Your task to perform on an android device: What's the news about the US dollar exchange rate? Image 0: 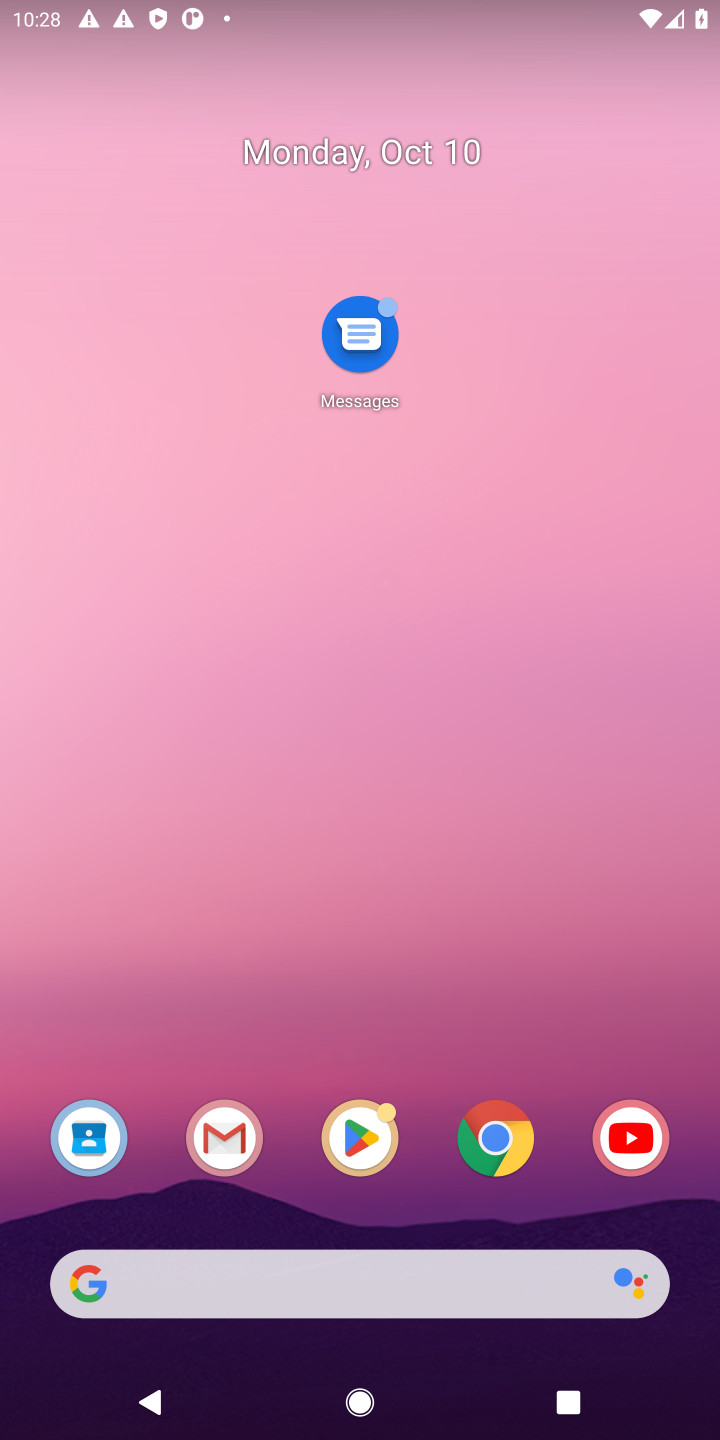
Step 0: click (494, 1149)
Your task to perform on an android device: What's the news about the US dollar exchange rate? Image 1: 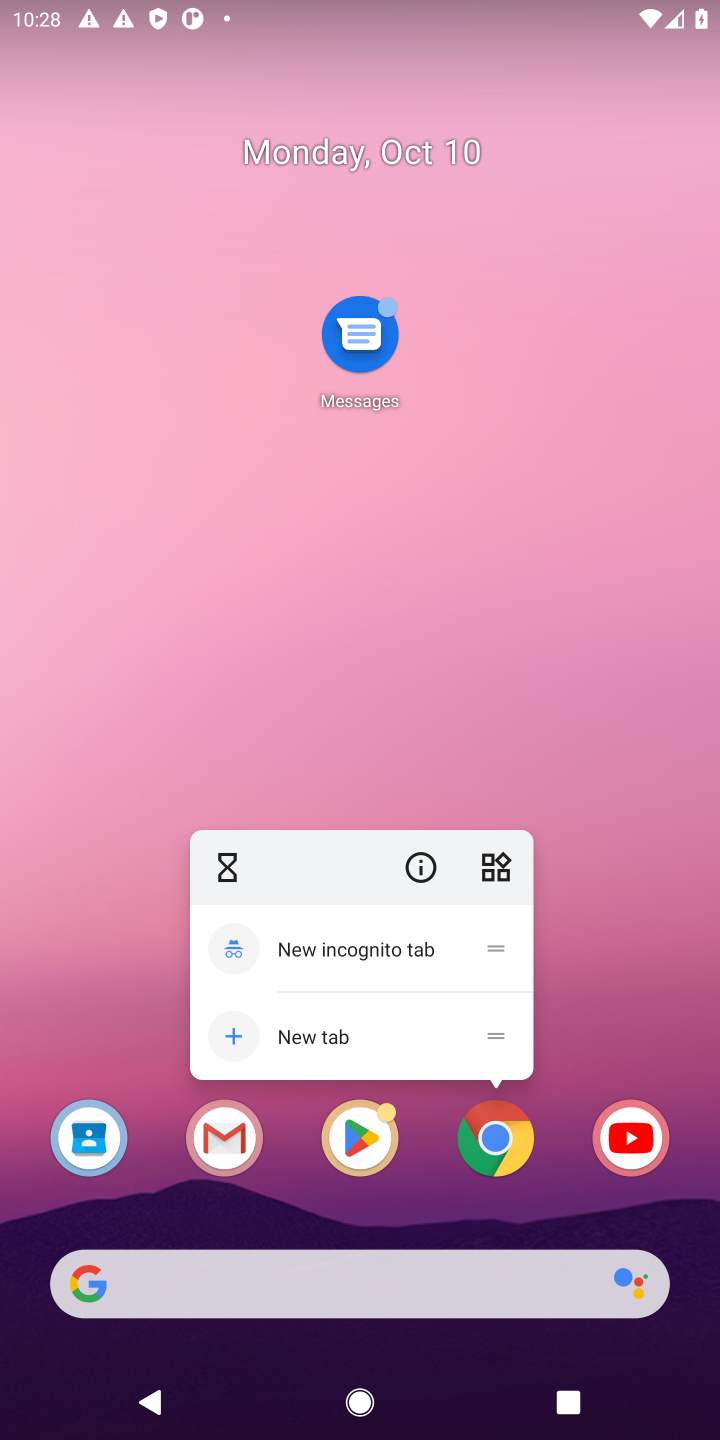
Step 1: click (513, 1135)
Your task to perform on an android device: What's the news about the US dollar exchange rate? Image 2: 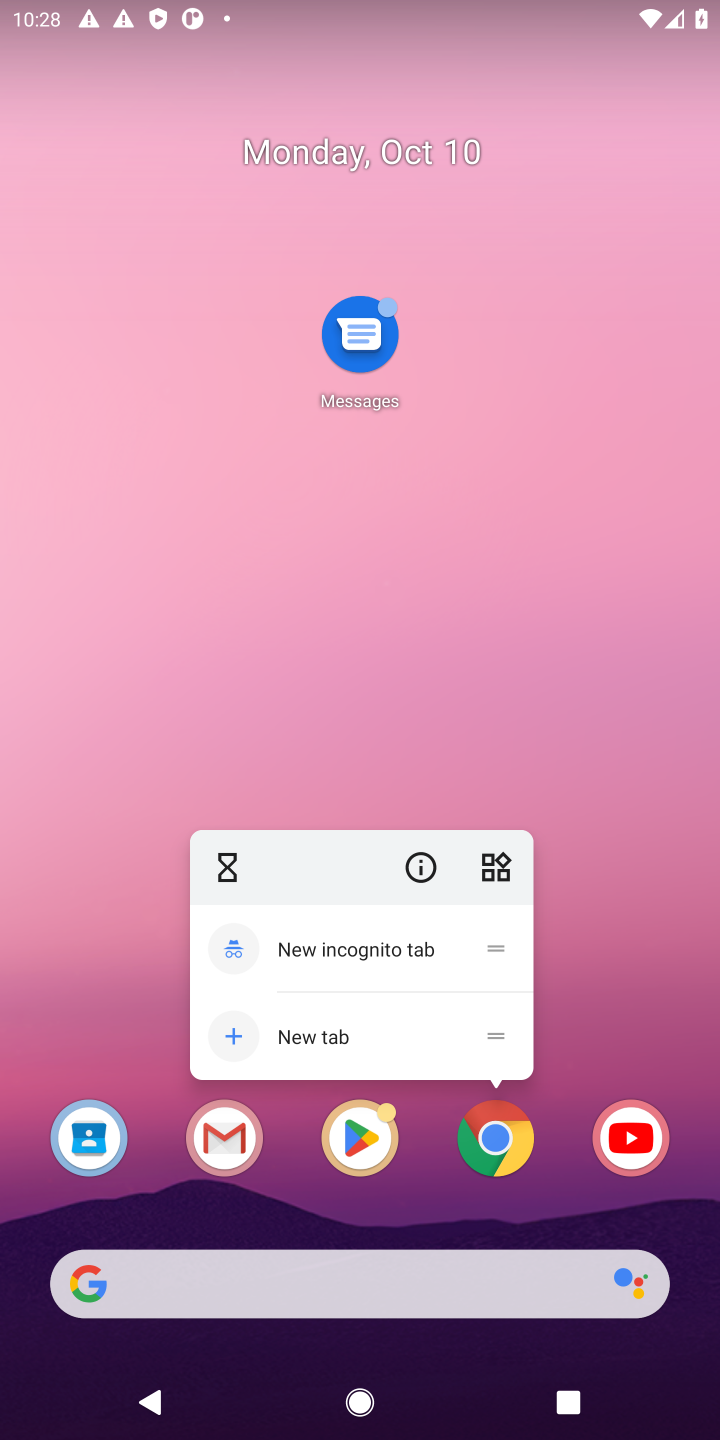
Step 2: click (483, 1136)
Your task to perform on an android device: What's the news about the US dollar exchange rate? Image 3: 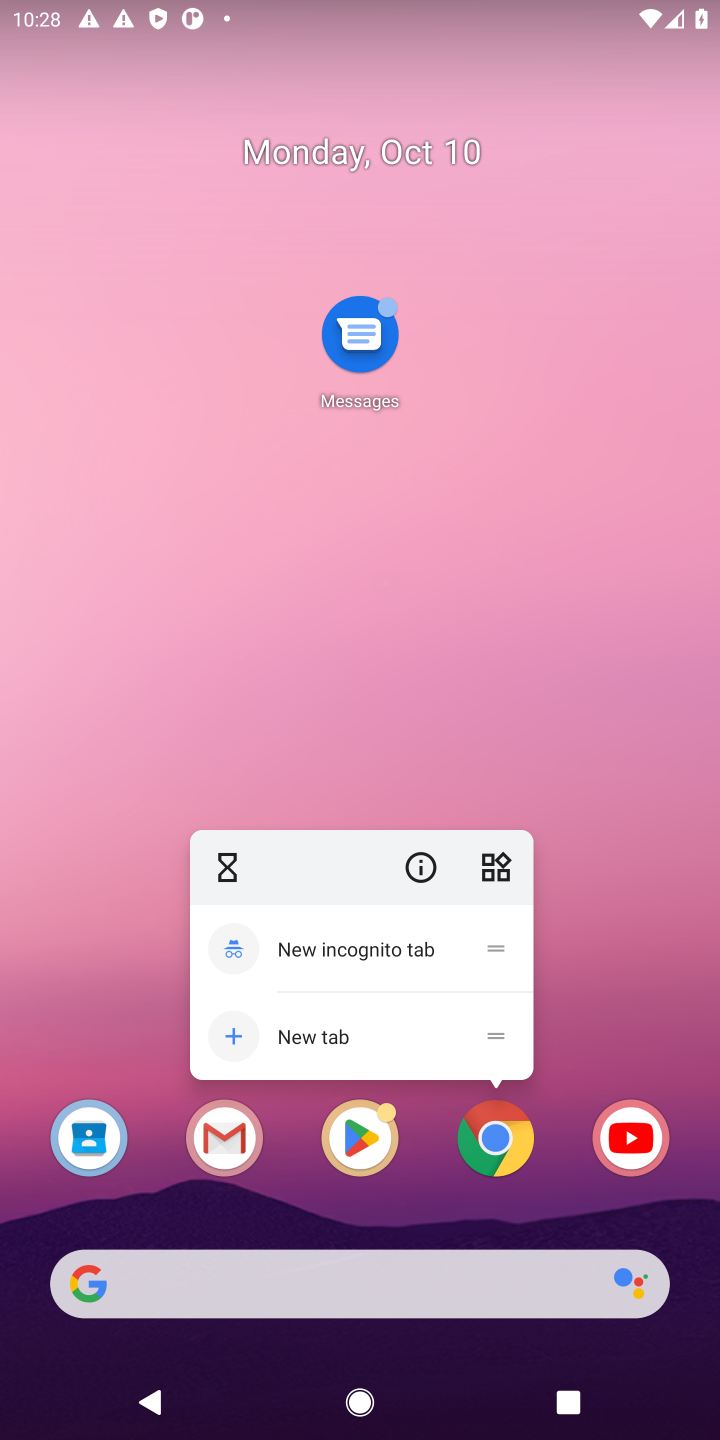
Step 3: click (496, 1158)
Your task to perform on an android device: What's the news about the US dollar exchange rate? Image 4: 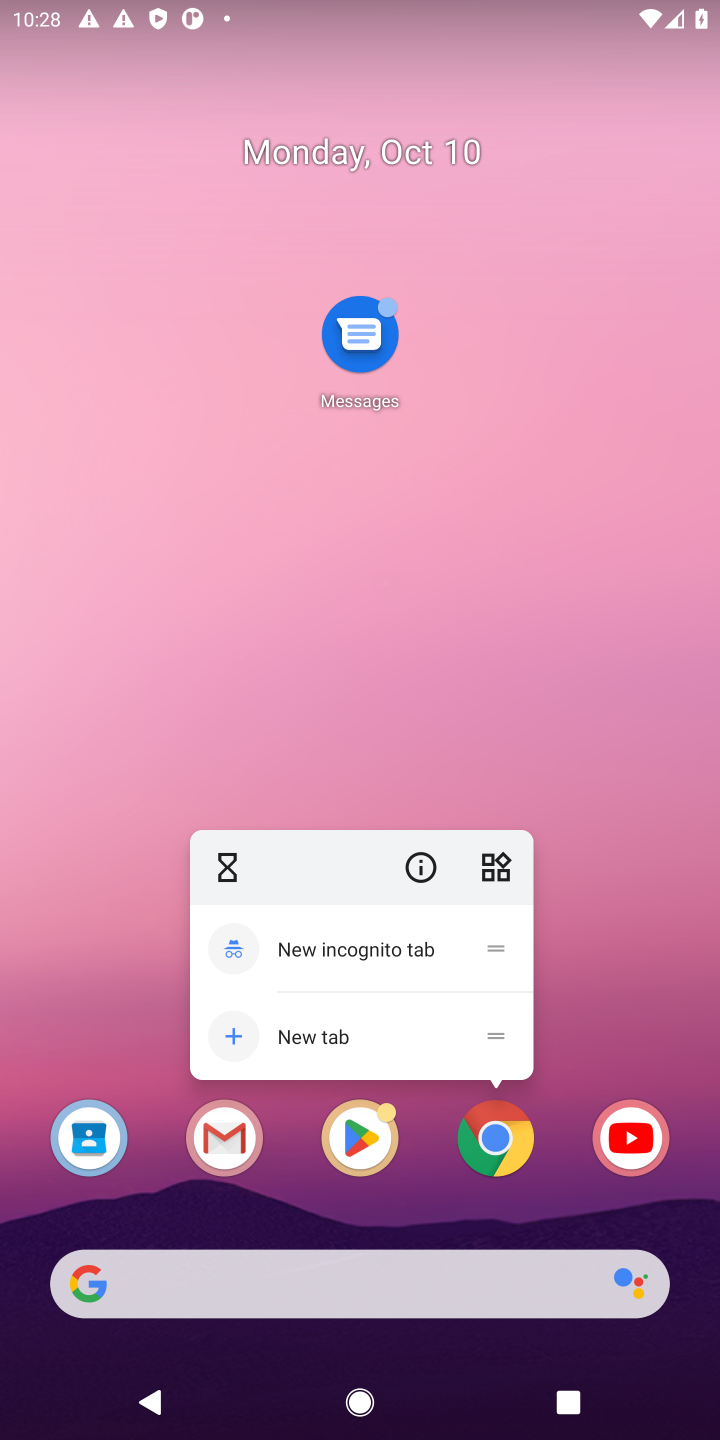
Step 4: click (504, 1139)
Your task to perform on an android device: What's the news about the US dollar exchange rate? Image 5: 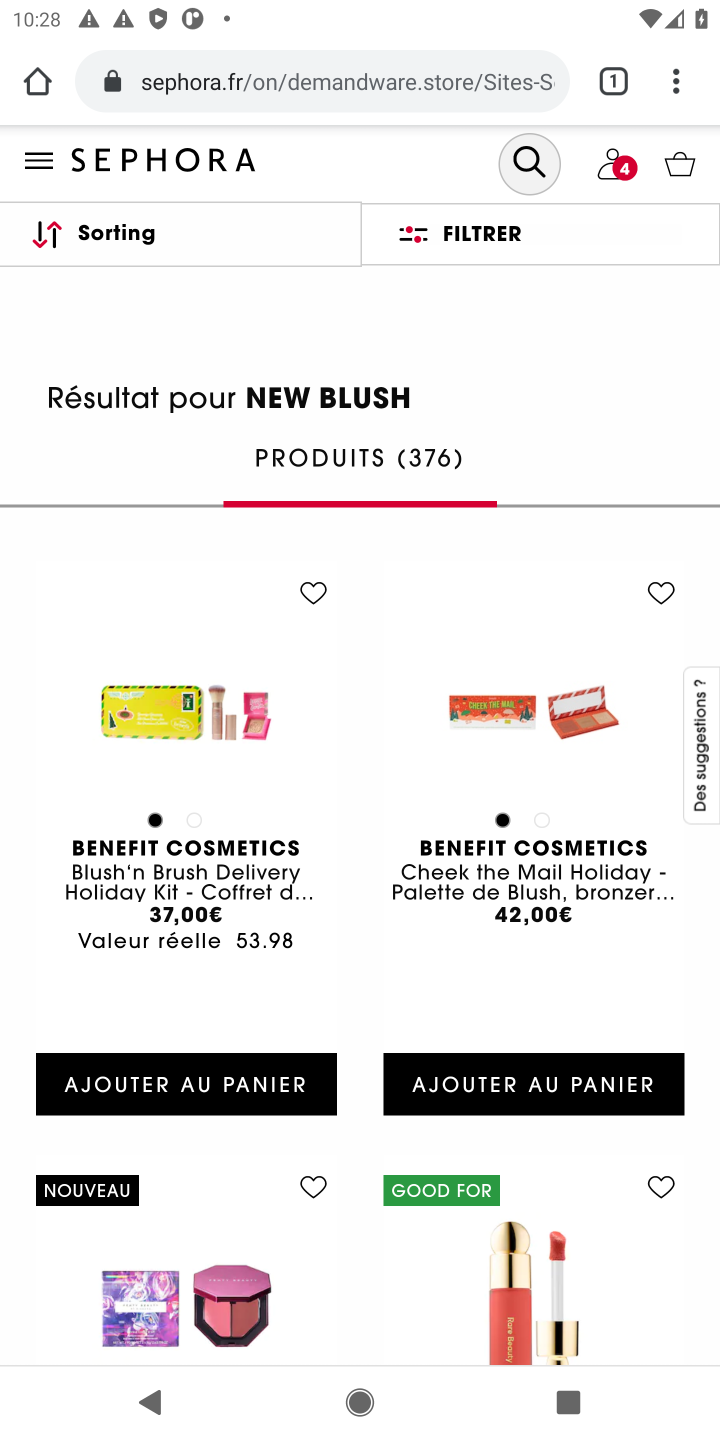
Step 5: click (315, 83)
Your task to perform on an android device: What's the news about the US dollar exchange rate? Image 6: 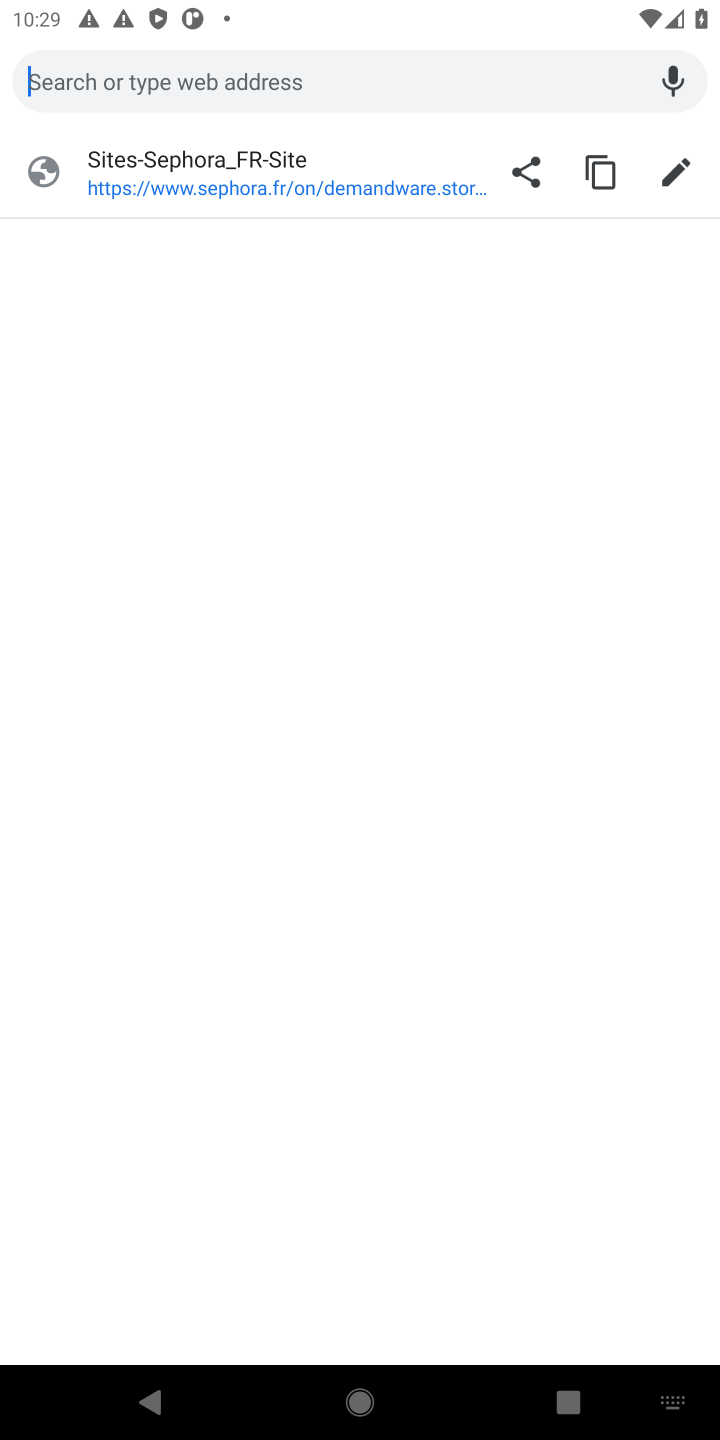
Step 6: type "news about the US dollar exchange rate"
Your task to perform on an android device: What's the news about the US dollar exchange rate? Image 7: 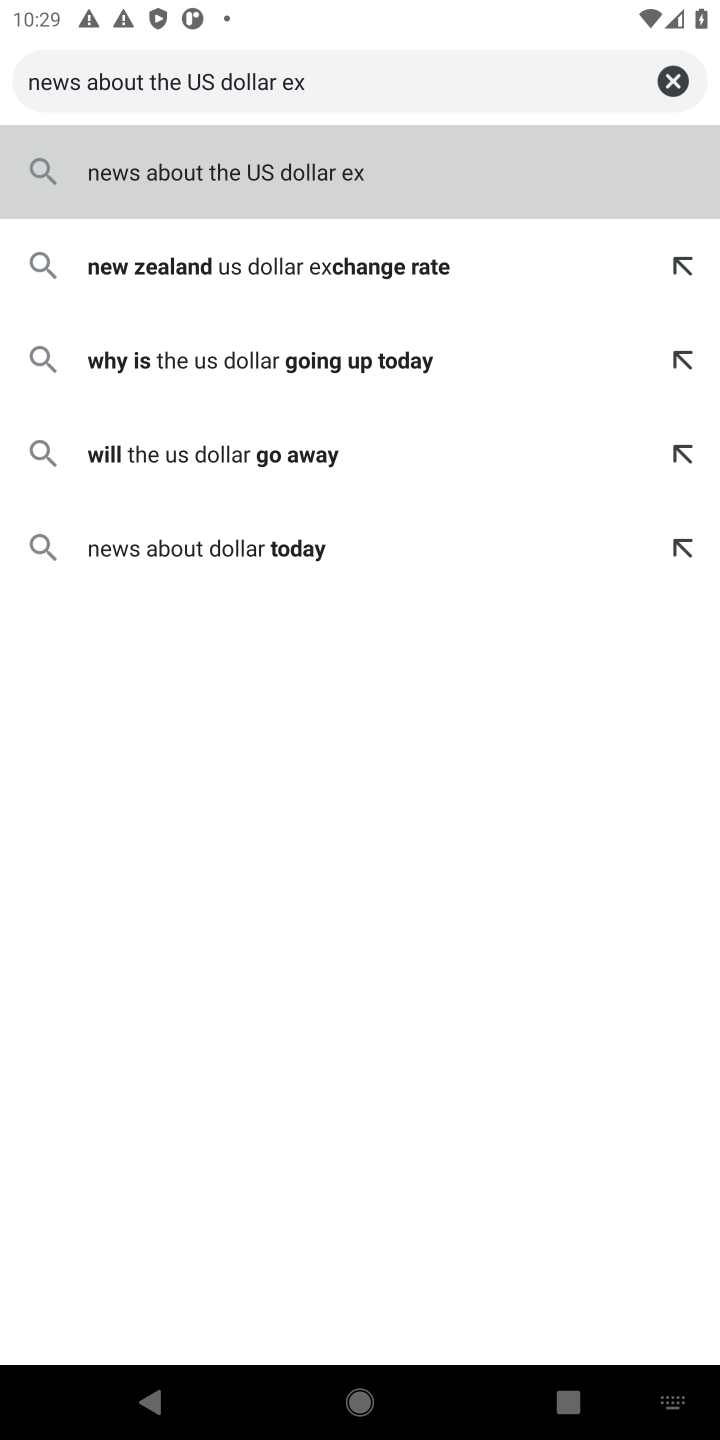
Step 7: press enter
Your task to perform on an android device: What's the news about the US dollar exchange rate? Image 8: 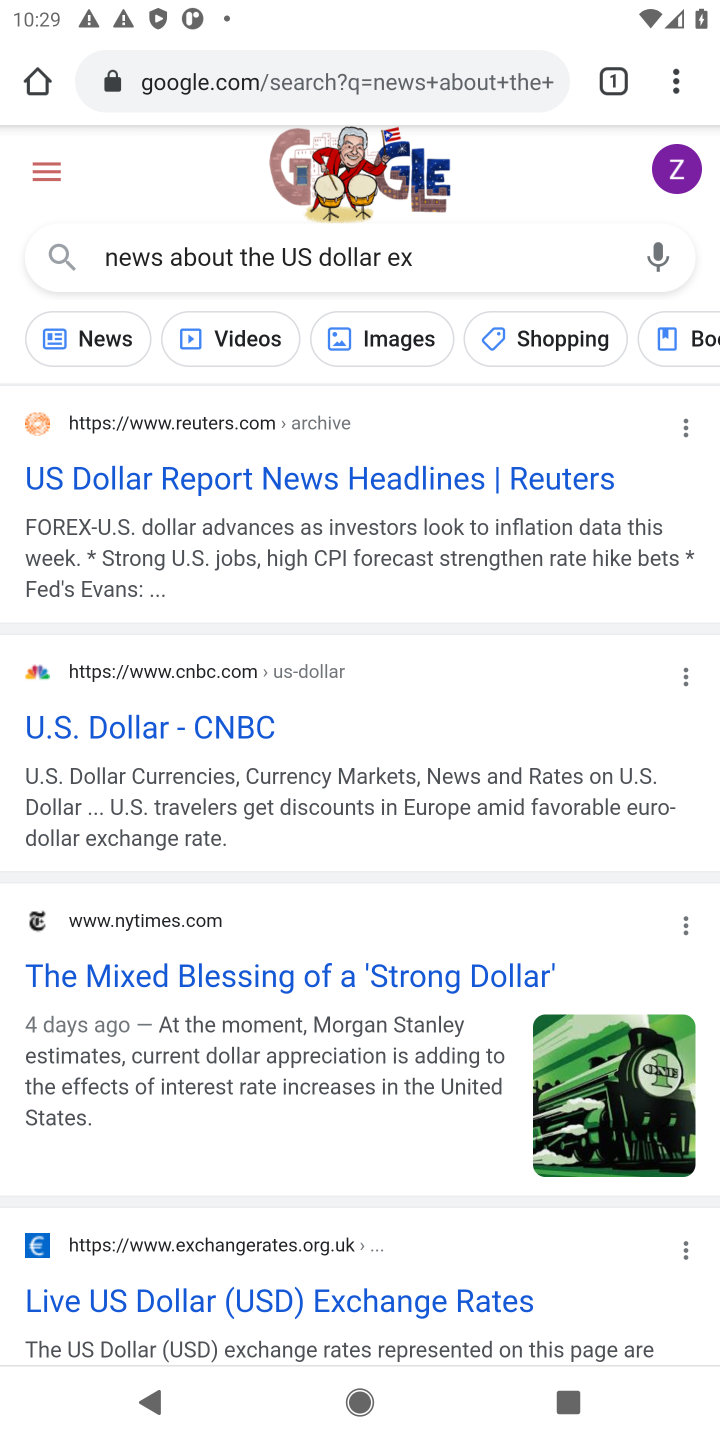
Step 8: click (356, 478)
Your task to perform on an android device: What's the news about the US dollar exchange rate? Image 9: 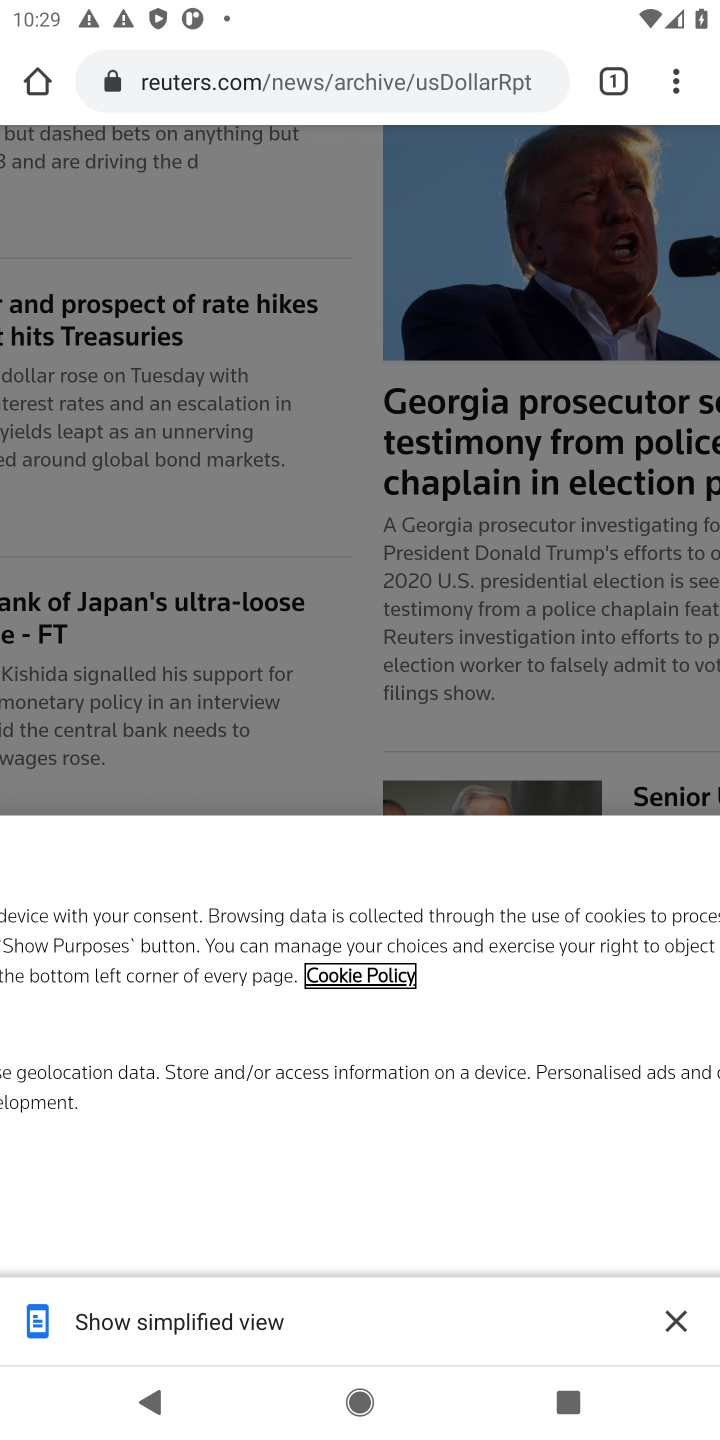
Step 9: press back button
Your task to perform on an android device: What's the news about the US dollar exchange rate? Image 10: 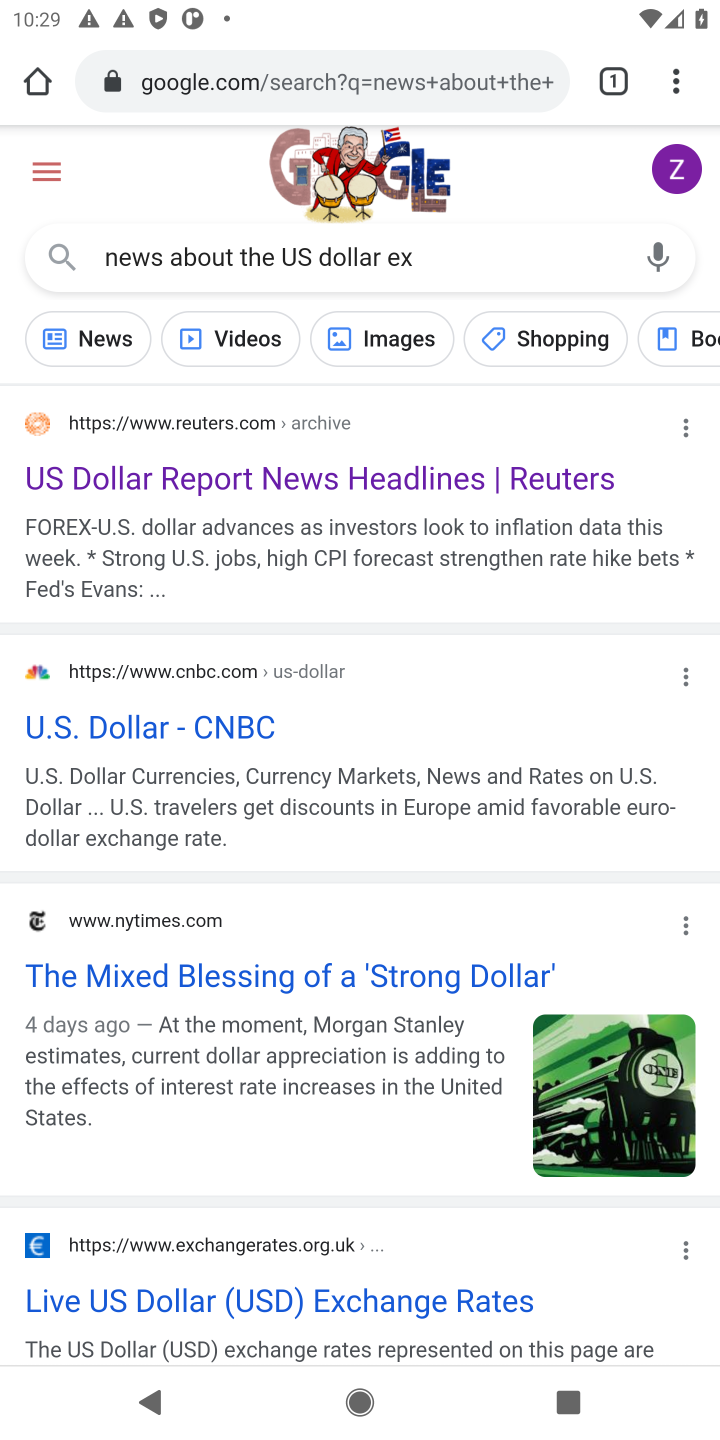
Step 10: click (107, 348)
Your task to perform on an android device: What's the news about the US dollar exchange rate? Image 11: 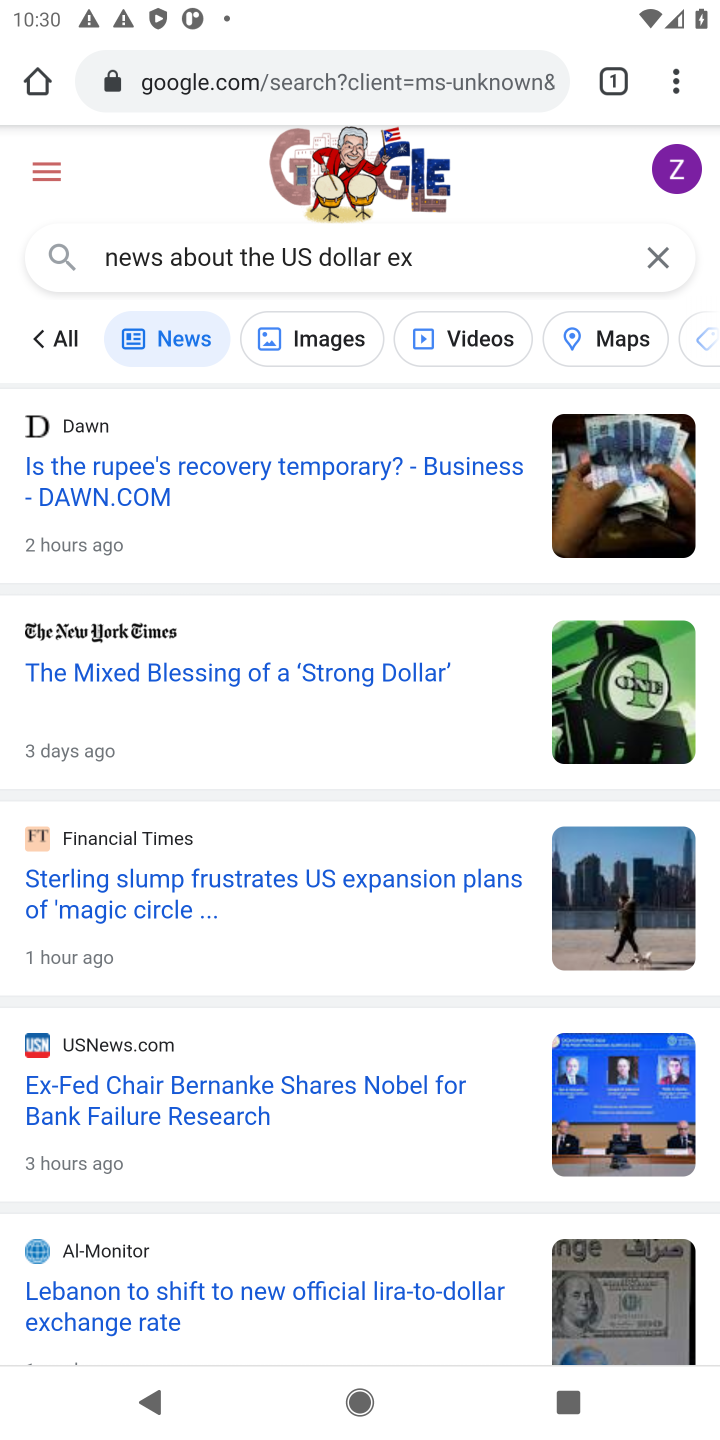
Step 11: task complete